Your task to perform on an android device: turn off wifi Image 0: 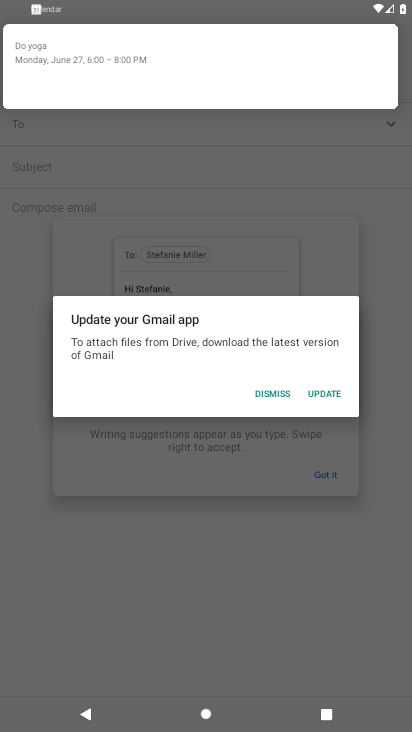
Step 0: press home button
Your task to perform on an android device: turn off wifi Image 1: 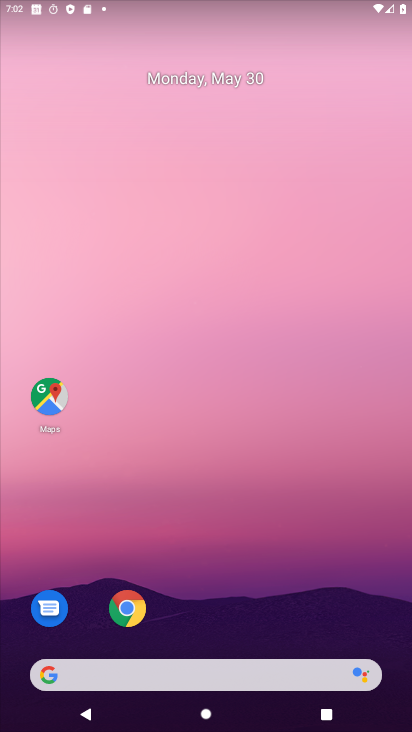
Step 1: drag from (185, 570) to (341, 140)
Your task to perform on an android device: turn off wifi Image 2: 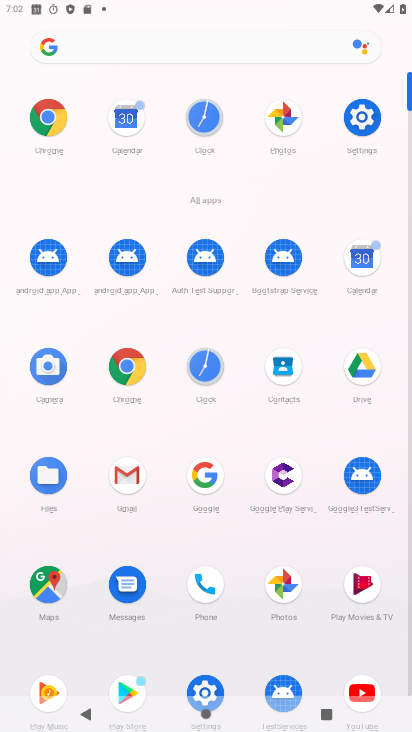
Step 2: click (356, 118)
Your task to perform on an android device: turn off wifi Image 3: 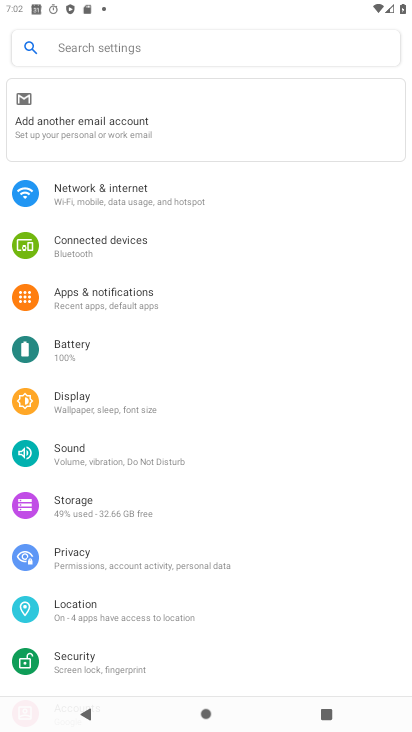
Step 3: click (142, 195)
Your task to perform on an android device: turn off wifi Image 4: 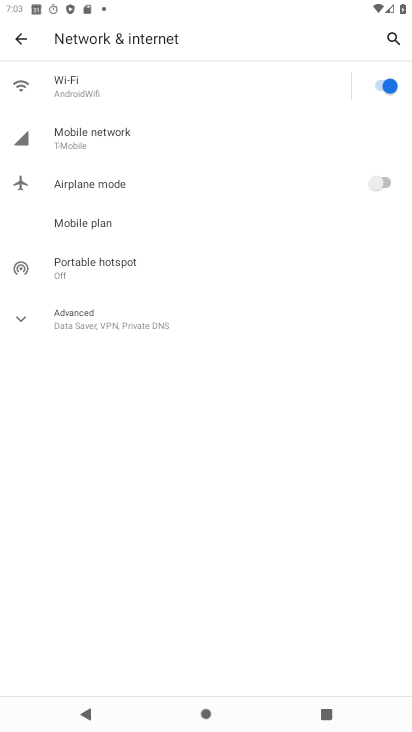
Step 4: click (370, 87)
Your task to perform on an android device: turn off wifi Image 5: 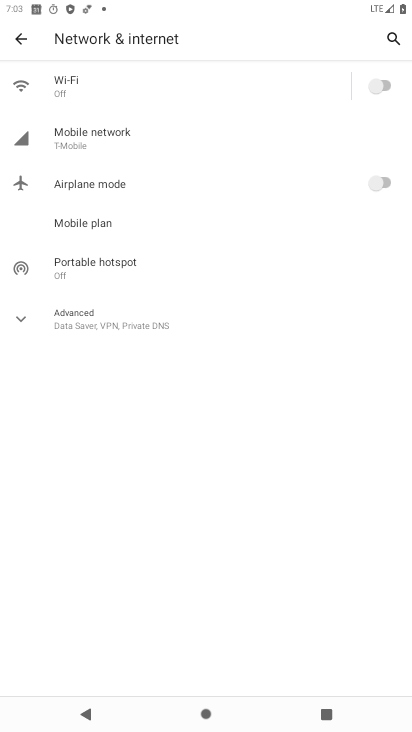
Step 5: task complete